Your task to perform on an android device: Open calendar and show me the fourth week of next month Image 0: 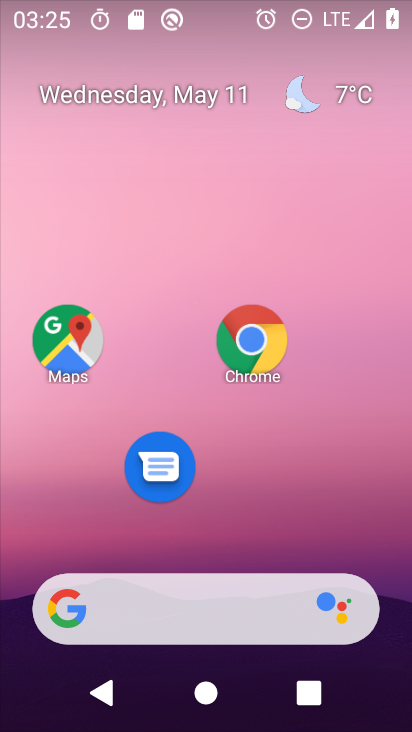
Step 0: drag from (151, 473) to (236, 232)
Your task to perform on an android device: Open calendar and show me the fourth week of next month Image 1: 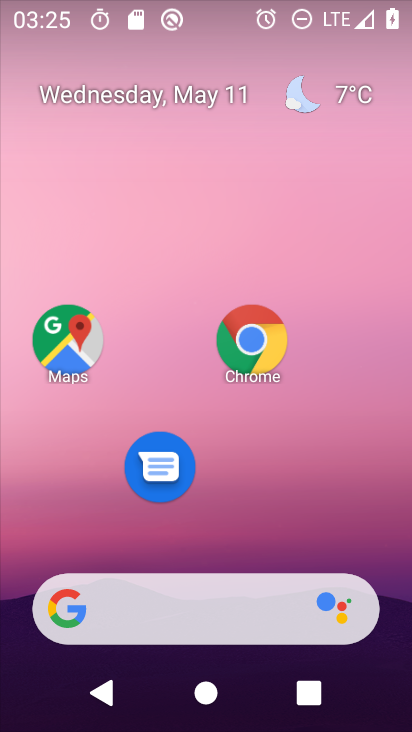
Step 1: drag from (184, 616) to (308, 92)
Your task to perform on an android device: Open calendar and show me the fourth week of next month Image 2: 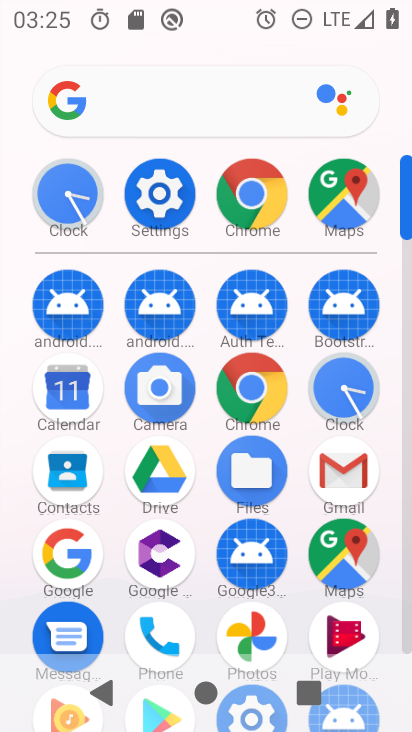
Step 2: click (75, 392)
Your task to perform on an android device: Open calendar and show me the fourth week of next month Image 3: 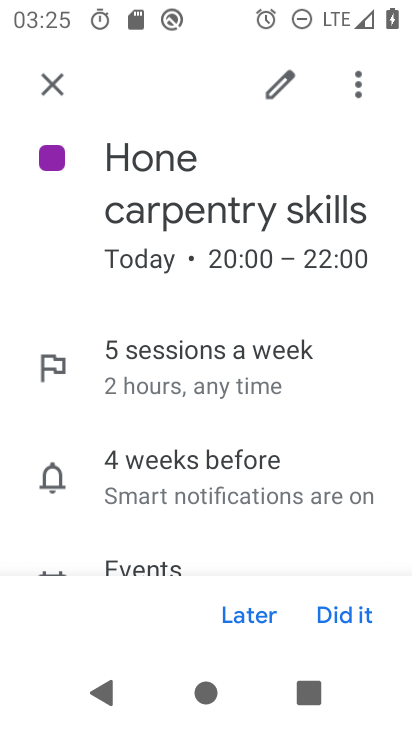
Step 3: click (55, 80)
Your task to perform on an android device: Open calendar and show me the fourth week of next month Image 4: 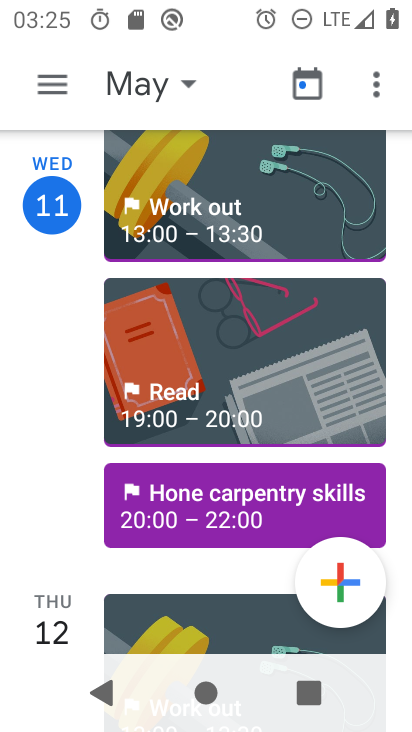
Step 4: click (125, 87)
Your task to perform on an android device: Open calendar and show me the fourth week of next month Image 5: 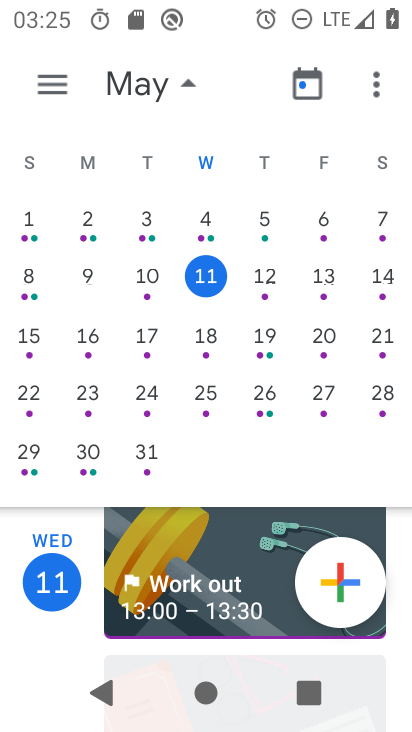
Step 5: drag from (340, 340) to (41, 386)
Your task to perform on an android device: Open calendar and show me the fourth week of next month Image 6: 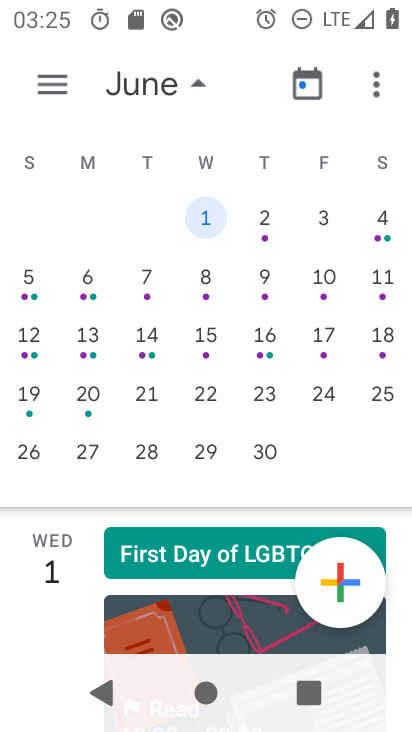
Step 6: click (29, 392)
Your task to perform on an android device: Open calendar and show me the fourth week of next month Image 7: 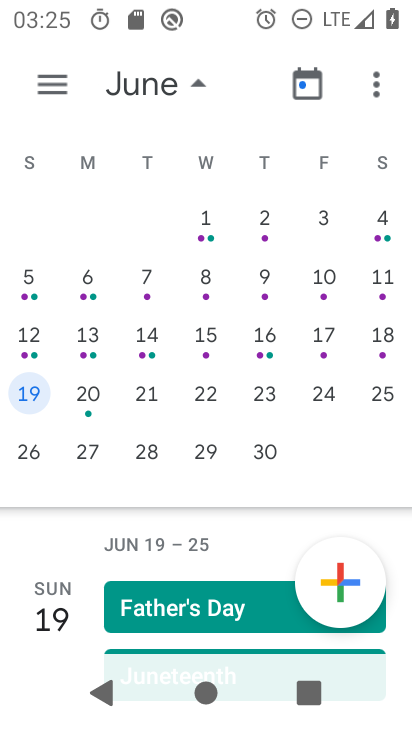
Step 7: click (52, 82)
Your task to perform on an android device: Open calendar and show me the fourth week of next month Image 8: 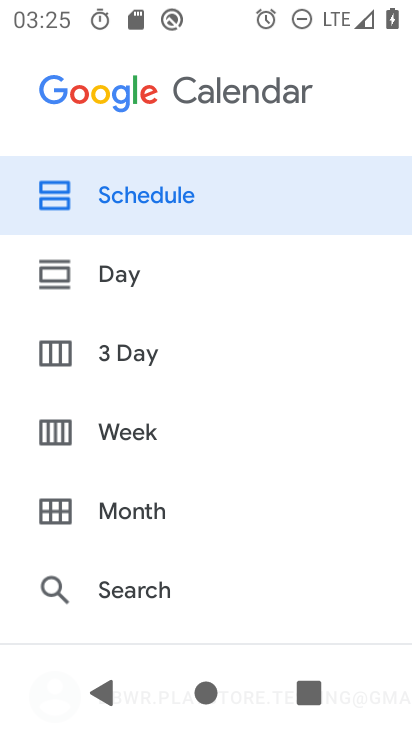
Step 8: click (129, 434)
Your task to perform on an android device: Open calendar and show me the fourth week of next month Image 9: 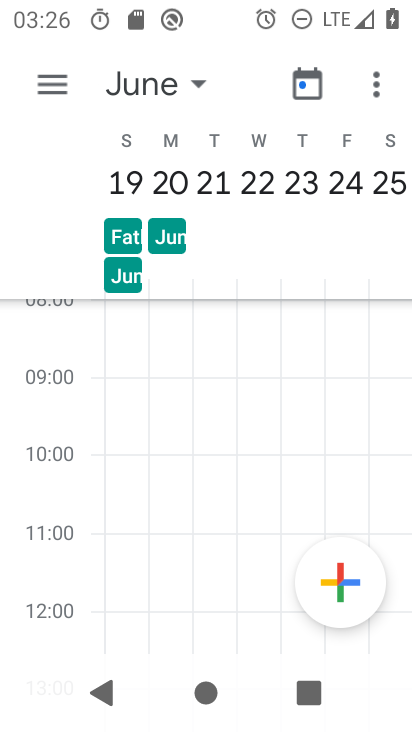
Step 9: task complete